Your task to perform on an android device: Open the Play Movies app and select the watchlist tab. Image 0: 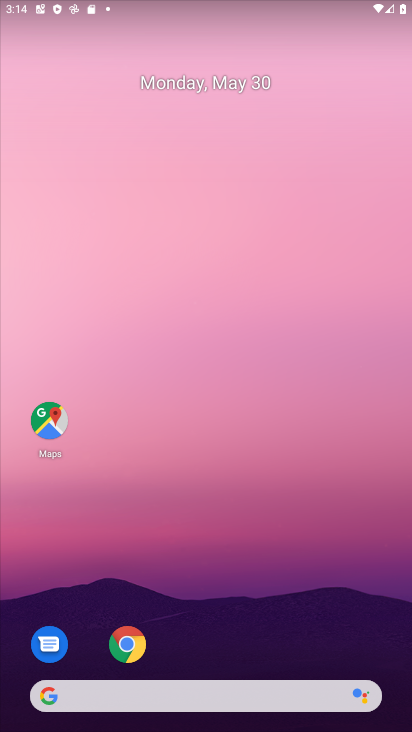
Step 0: drag from (322, 659) to (266, 366)
Your task to perform on an android device: Open the Play Movies app and select the watchlist tab. Image 1: 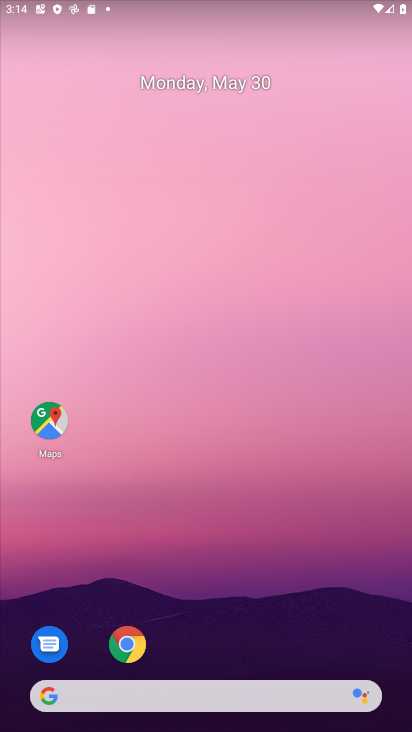
Step 1: drag from (343, 649) to (380, 1)
Your task to perform on an android device: Open the Play Movies app and select the watchlist tab. Image 2: 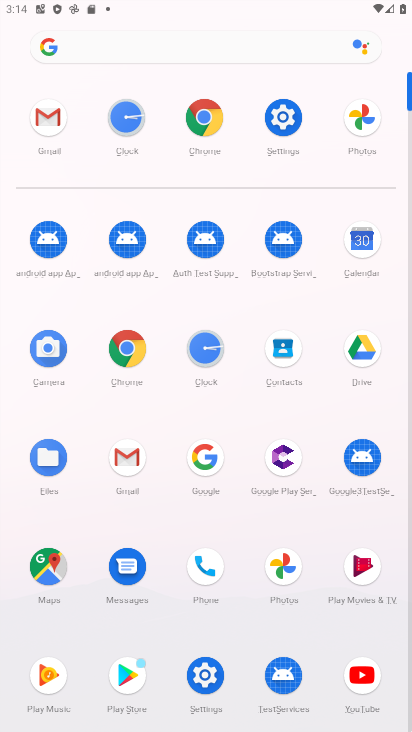
Step 2: click (365, 575)
Your task to perform on an android device: Open the Play Movies app and select the watchlist tab. Image 3: 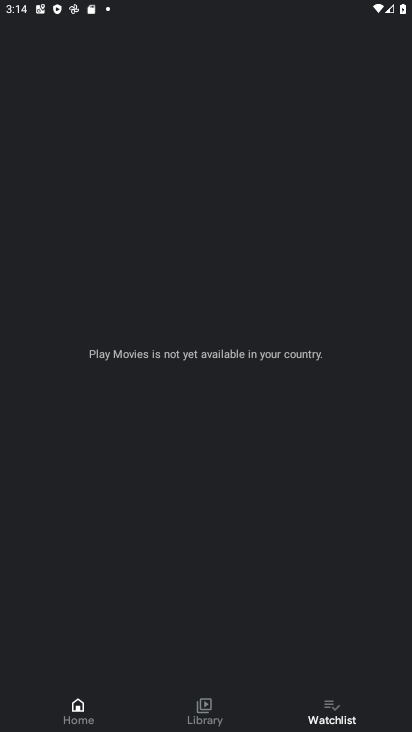
Step 3: task complete